Your task to perform on an android device: Open Google Chrome Image 0: 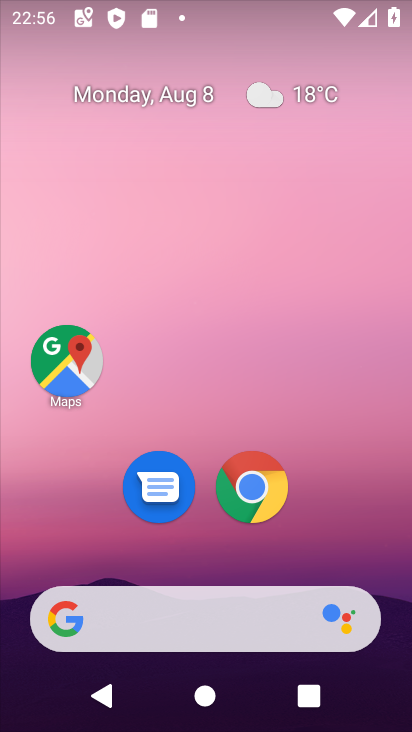
Step 0: click (262, 484)
Your task to perform on an android device: Open Google Chrome Image 1: 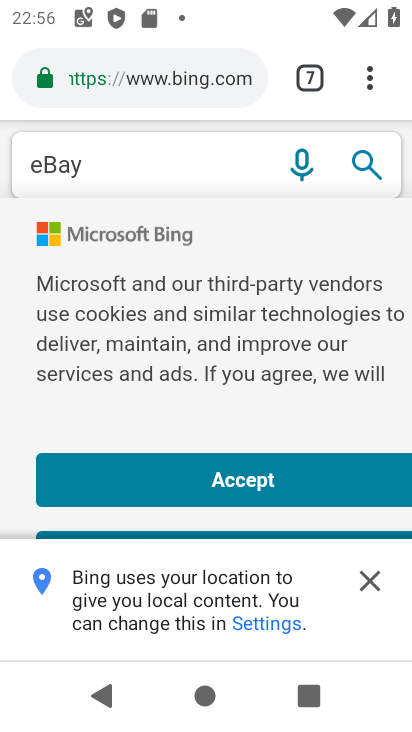
Step 1: task complete